Your task to perform on an android device: Search for seafood restaurants on Google Maps Image 0: 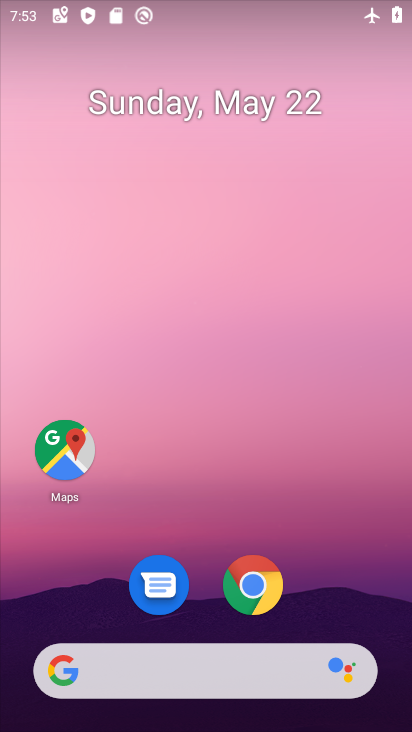
Step 0: click (67, 439)
Your task to perform on an android device: Search for seafood restaurants on Google Maps Image 1: 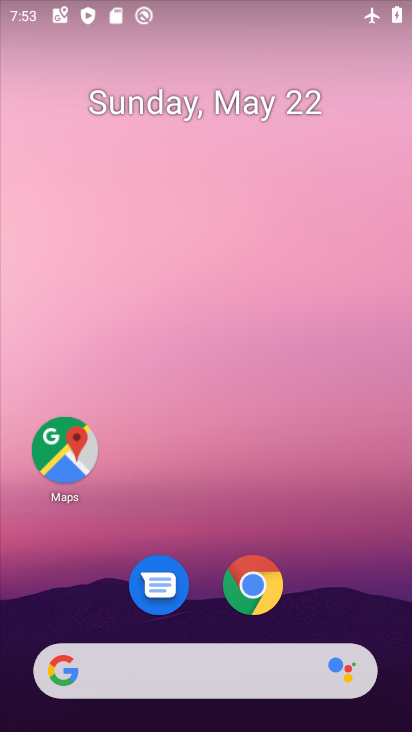
Step 1: click (67, 439)
Your task to perform on an android device: Search for seafood restaurants on Google Maps Image 2: 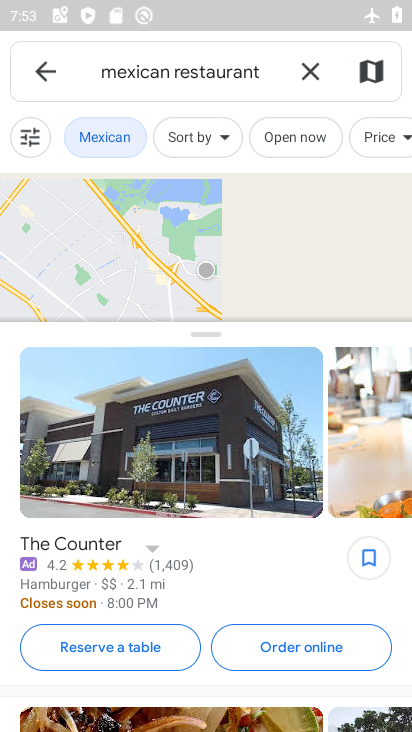
Step 2: click (309, 57)
Your task to perform on an android device: Search for seafood restaurants on Google Maps Image 3: 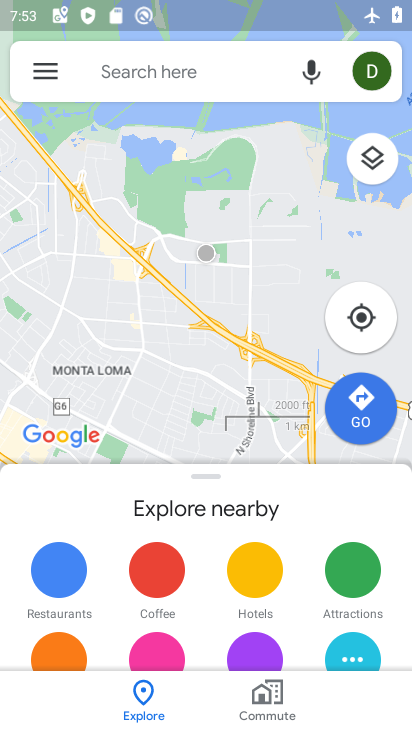
Step 3: click (235, 69)
Your task to perform on an android device: Search for seafood restaurants on Google Maps Image 4: 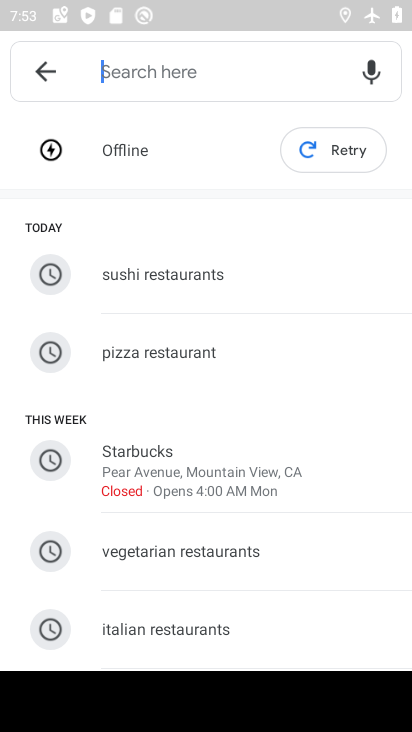
Step 4: drag from (252, 393) to (245, 214)
Your task to perform on an android device: Search for seafood restaurants on Google Maps Image 5: 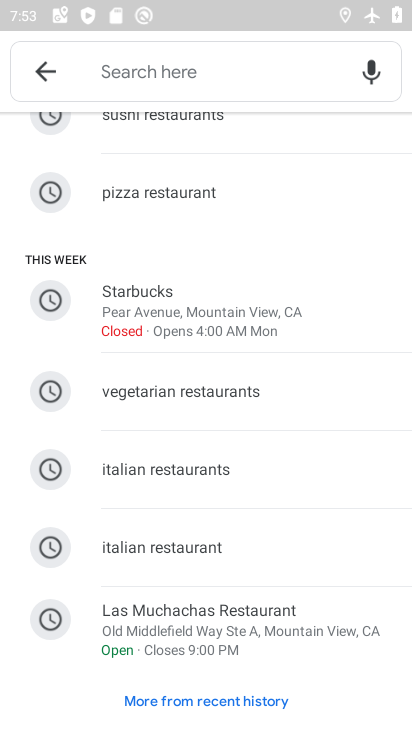
Step 5: drag from (246, 243) to (260, 493)
Your task to perform on an android device: Search for seafood restaurants on Google Maps Image 6: 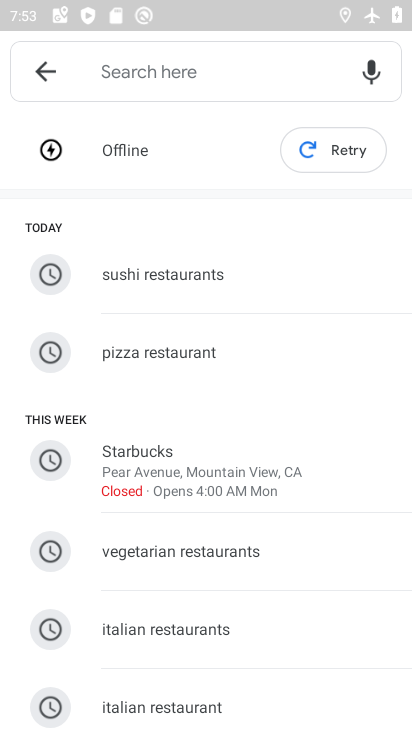
Step 6: click (192, 57)
Your task to perform on an android device: Search for seafood restaurants on Google Maps Image 7: 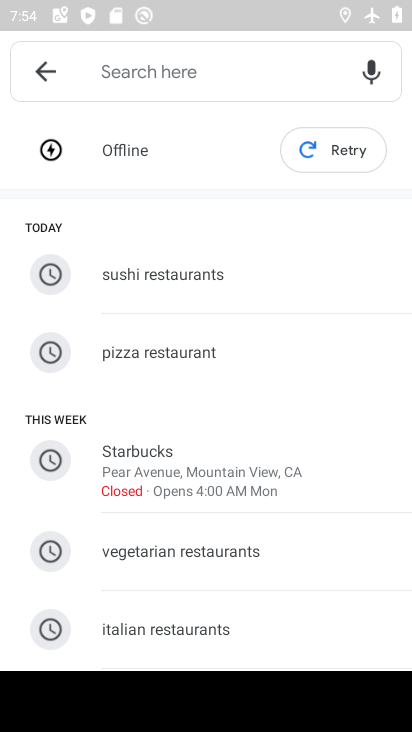
Step 7: type "seafood restaurants"
Your task to perform on an android device: Search for seafood restaurants on Google Maps Image 8: 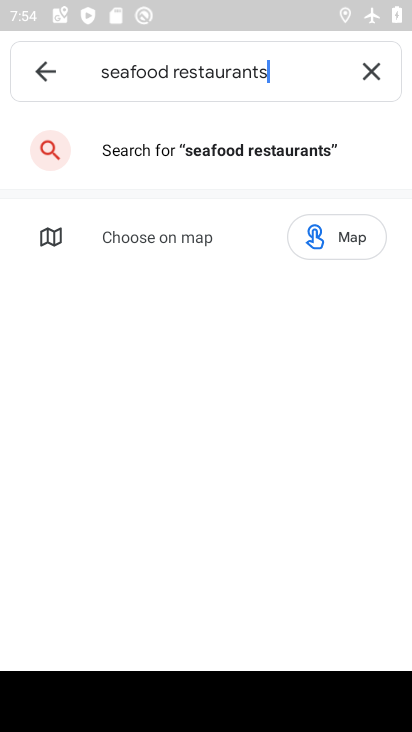
Step 8: click (263, 146)
Your task to perform on an android device: Search for seafood restaurants on Google Maps Image 9: 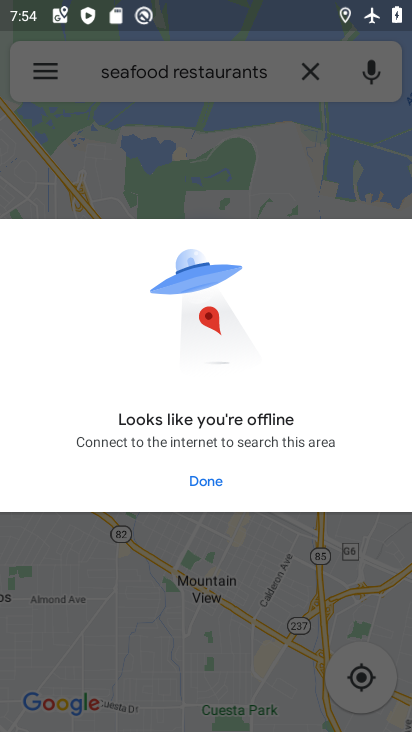
Step 9: task complete